Your task to perform on an android device: Go to CNN.com Image 0: 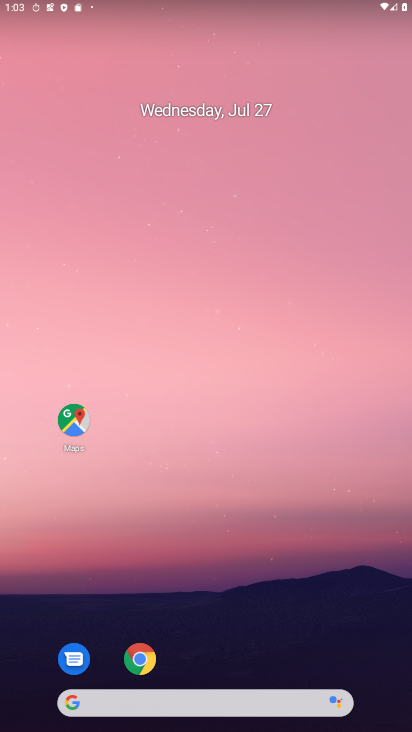
Step 0: press home button
Your task to perform on an android device: Go to CNN.com Image 1: 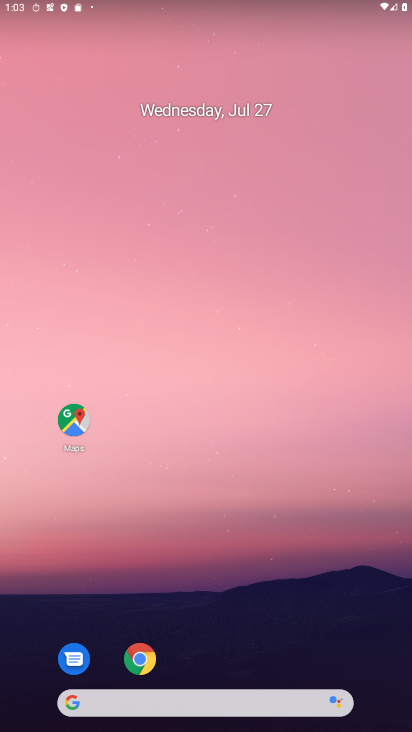
Step 1: click (146, 651)
Your task to perform on an android device: Go to CNN.com Image 2: 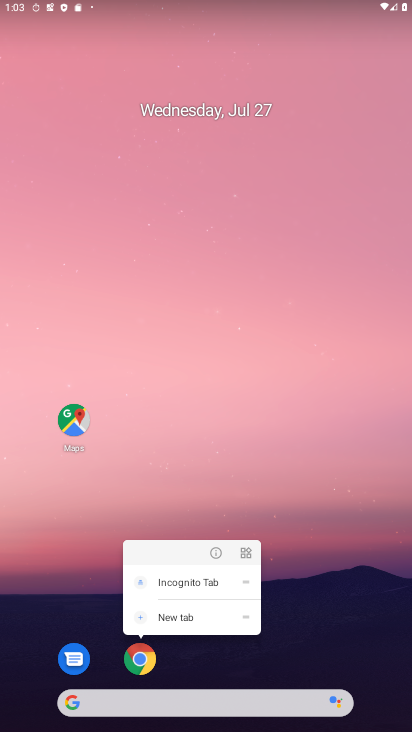
Step 2: click (143, 663)
Your task to perform on an android device: Go to CNN.com Image 3: 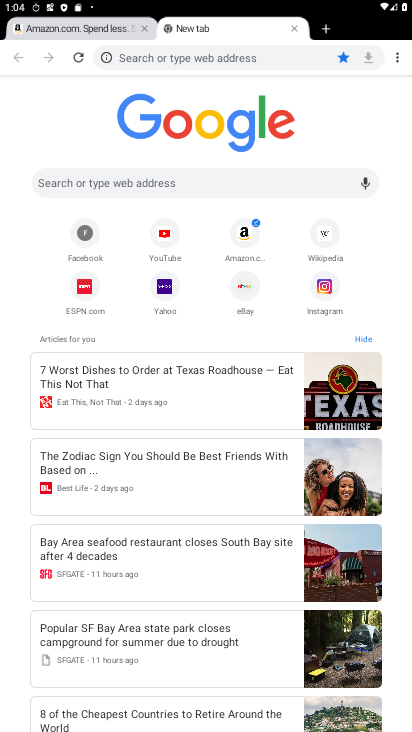
Step 3: click (198, 176)
Your task to perform on an android device: Go to CNN.com Image 4: 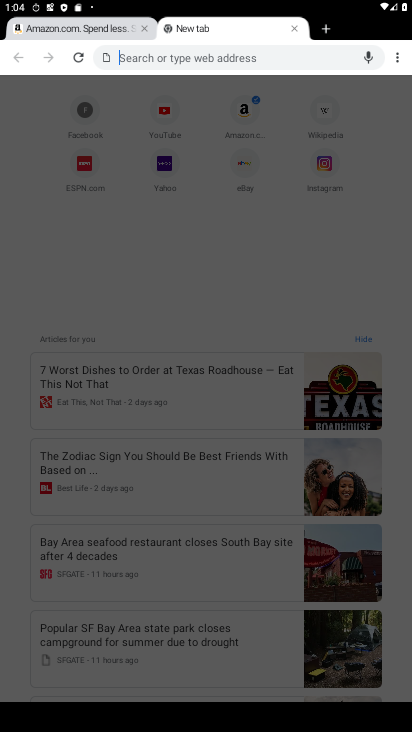
Step 4: type " CNN.com"
Your task to perform on an android device: Go to CNN.com Image 5: 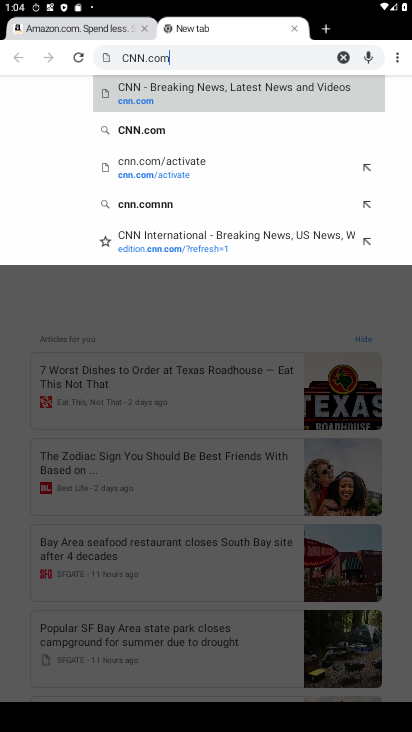
Step 5: type ""
Your task to perform on an android device: Go to CNN.com Image 6: 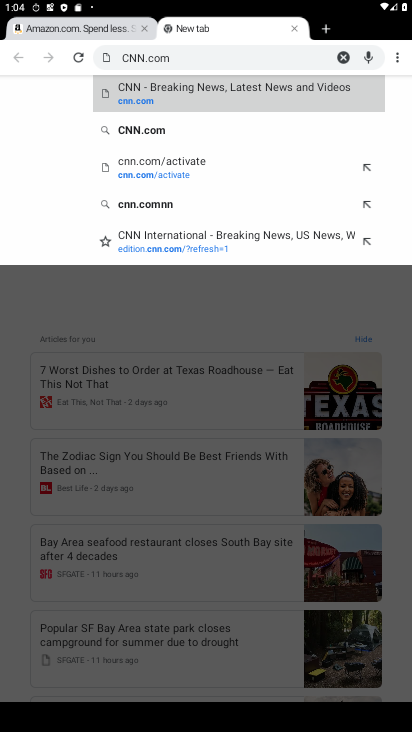
Step 6: click (187, 96)
Your task to perform on an android device: Go to CNN.com Image 7: 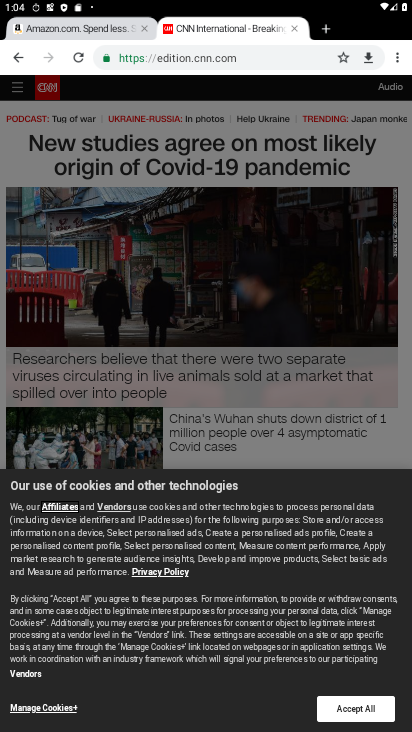
Step 7: click (193, 61)
Your task to perform on an android device: Go to CNN.com Image 8: 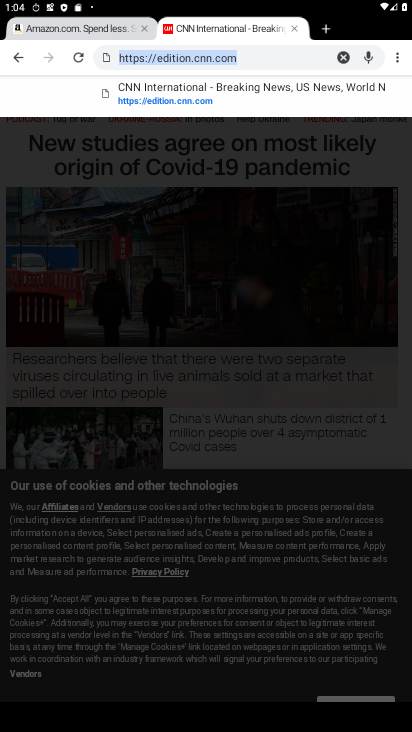
Step 8: task complete